Your task to perform on an android device: set default search engine in the chrome app Image 0: 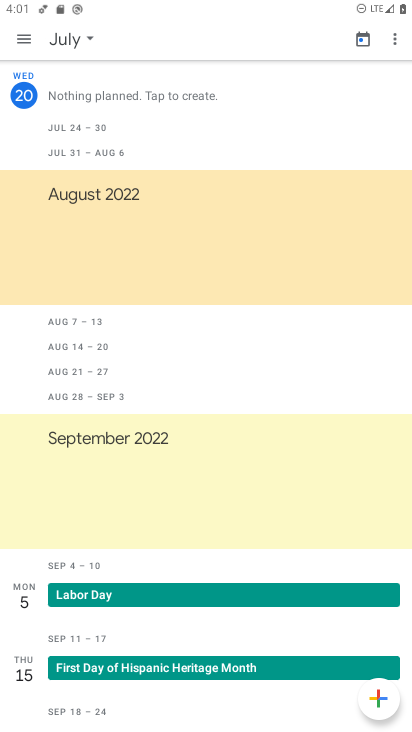
Step 0: press home button
Your task to perform on an android device: set default search engine in the chrome app Image 1: 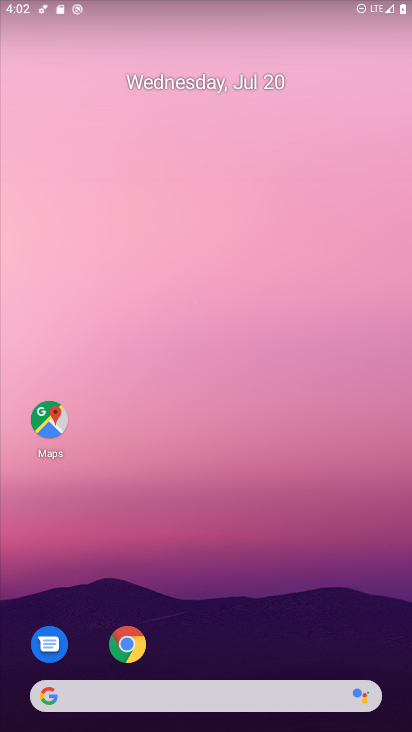
Step 1: drag from (238, 604) to (311, 9)
Your task to perform on an android device: set default search engine in the chrome app Image 2: 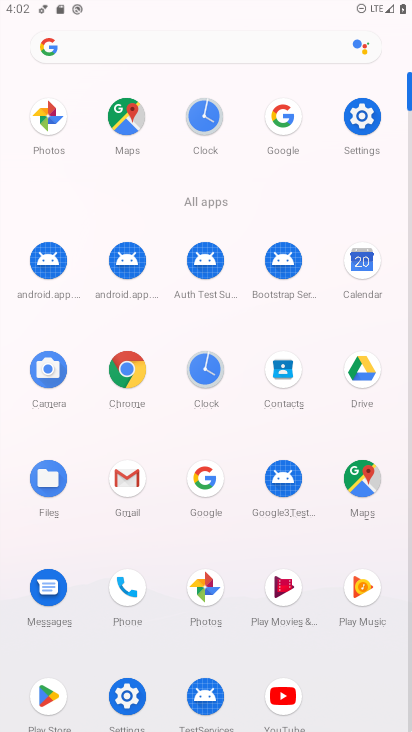
Step 2: click (129, 364)
Your task to perform on an android device: set default search engine in the chrome app Image 3: 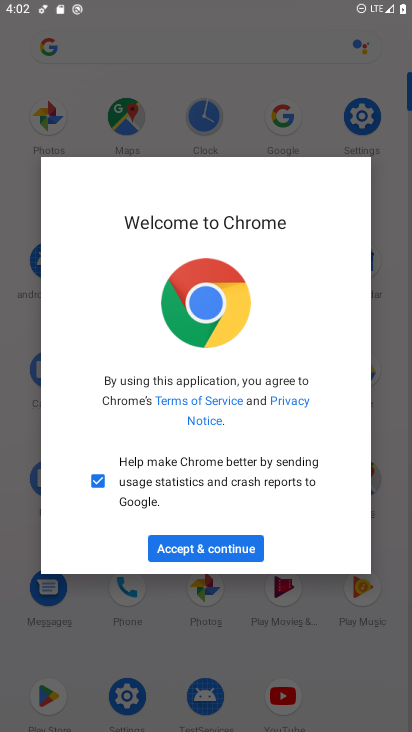
Step 3: click (208, 554)
Your task to perform on an android device: set default search engine in the chrome app Image 4: 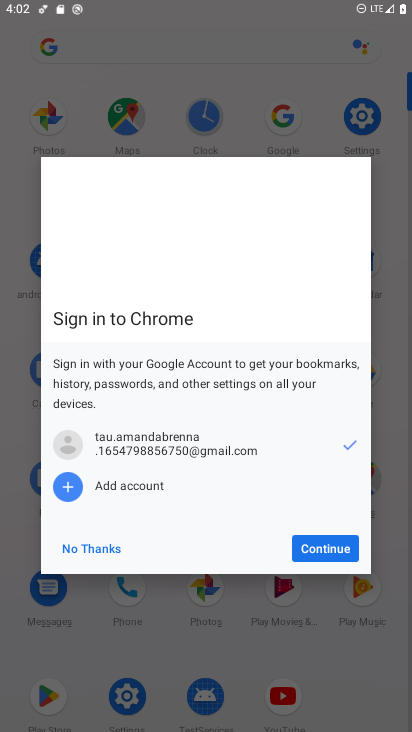
Step 4: click (320, 556)
Your task to perform on an android device: set default search engine in the chrome app Image 5: 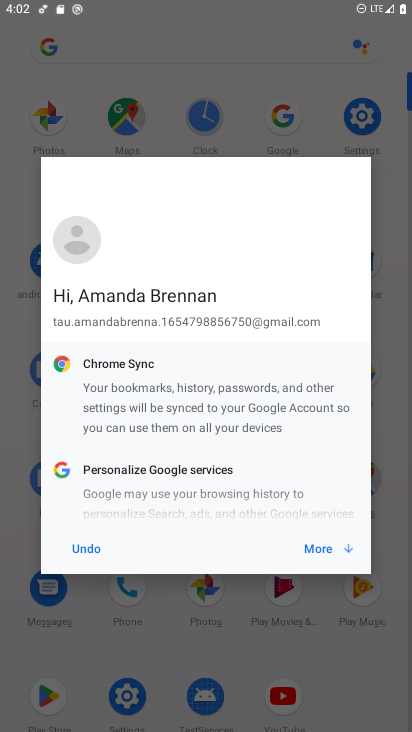
Step 5: click (317, 551)
Your task to perform on an android device: set default search engine in the chrome app Image 6: 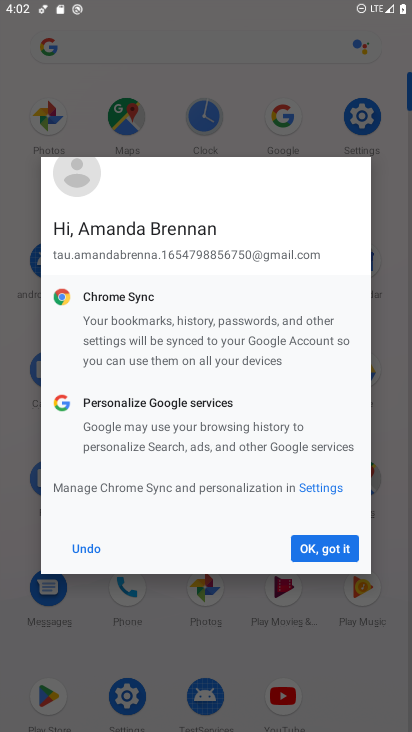
Step 6: click (325, 557)
Your task to perform on an android device: set default search engine in the chrome app Image 7: 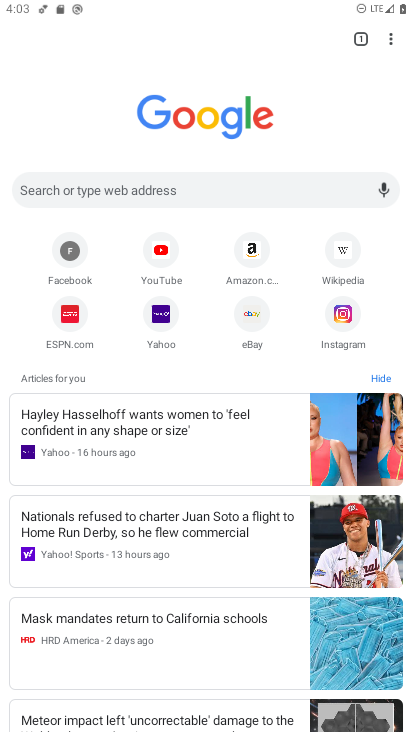
Step 7: click (390, 42)
Your task to perform on an android device: set default search engine in the chrome app Image 8: 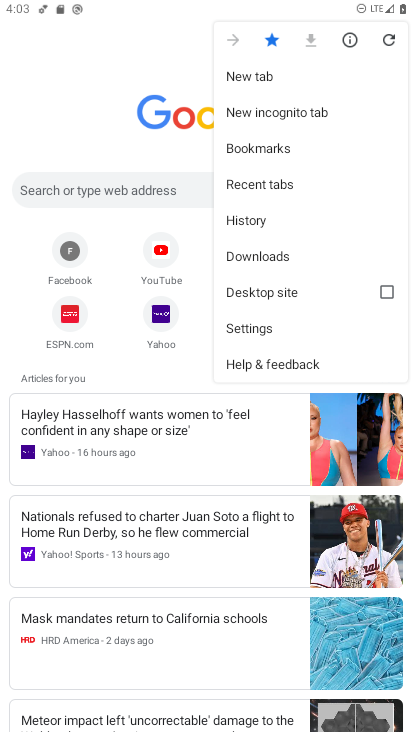
Step 8: click (261, 328)
Your task to perform on an android device: set default search engine in the chrome app Image 9: 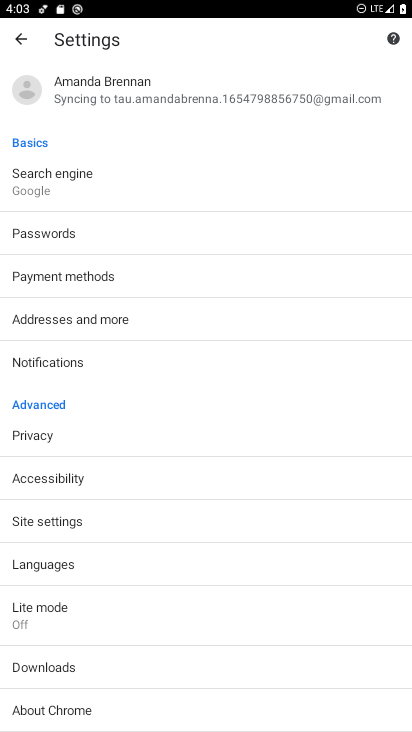
Step 9: click (70, 193)
Your task to perform on an android device: set default search engine in the chrome app Image 10: 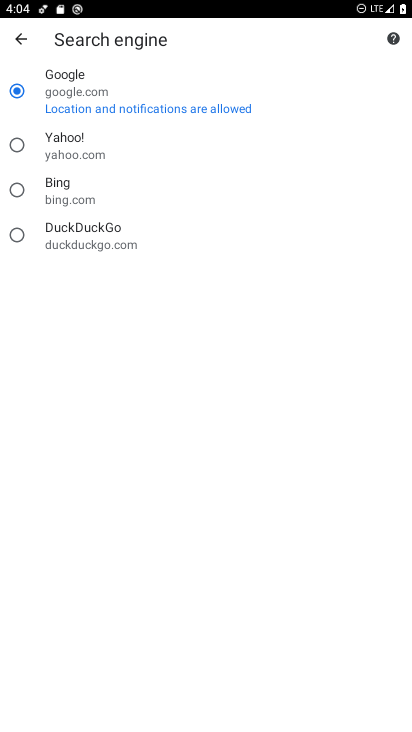
Step 10: task complete